Your task to perform on an android device: turn on location history Image 0: 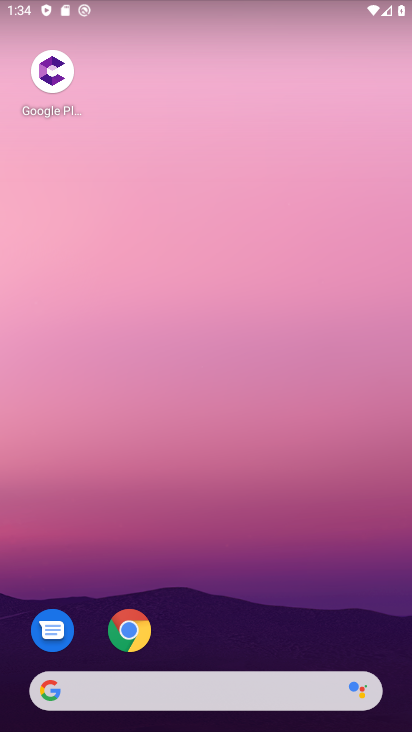
Step 0: drag from (388, 704) to (354, 103)
Your task to perform on an android device: turn on location history Image 1: 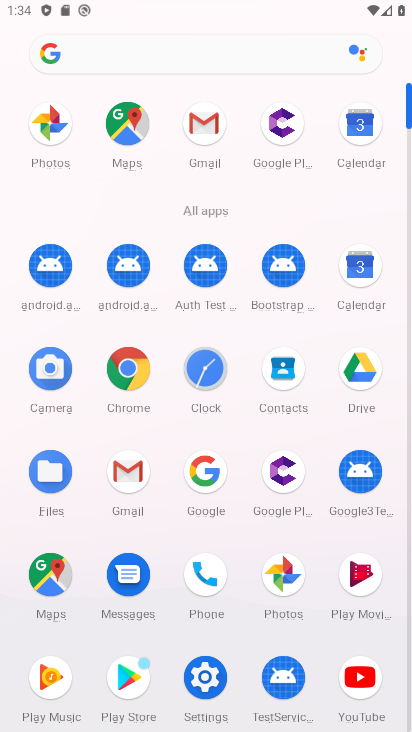
Step 1: click (197, 672)
Your task to perform on an android device: turn on location history Image 2: 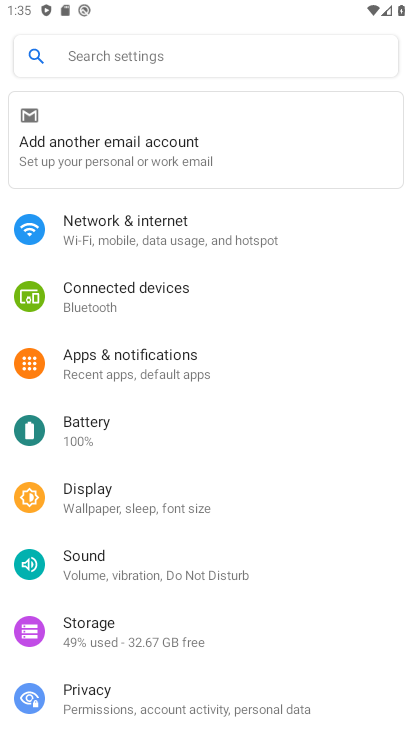
Step 2: drag from (210, 634) to (208, 330)
Your task to perform on an android device: turn on location history Image 3: 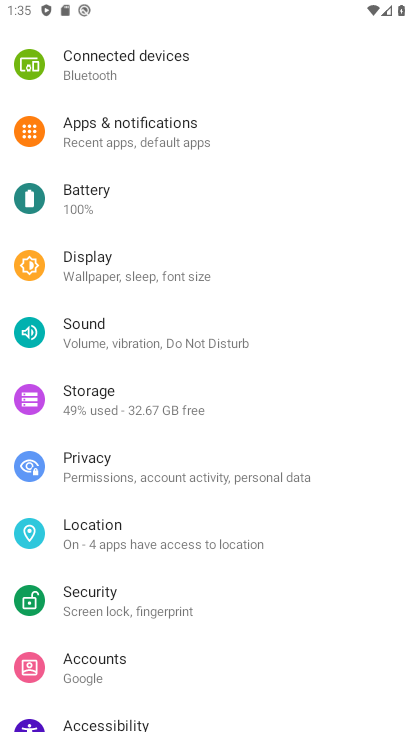
Step 3: click (81, 531)
Your task to perform on an android device: turn on location history Image 4: 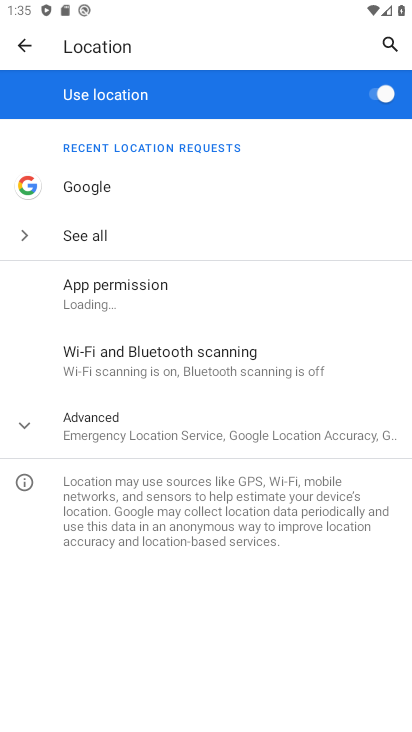
Step 4: click (27, 421)
Your task to perform on an android device: turn on location history Image 5: 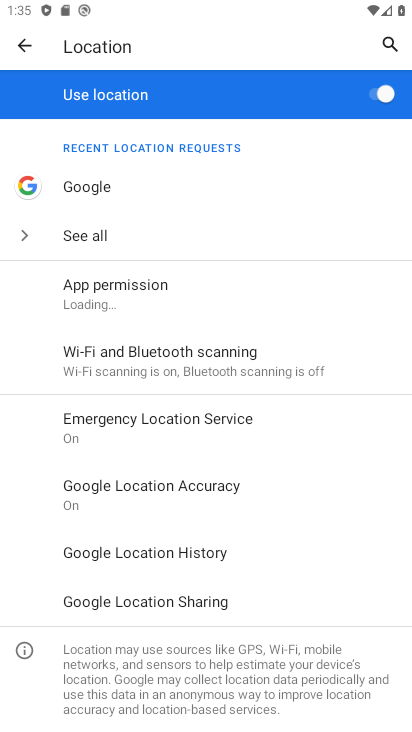
Step 5: click (164, 564)
Your task to perform on an android device: turn on location history Image 6: 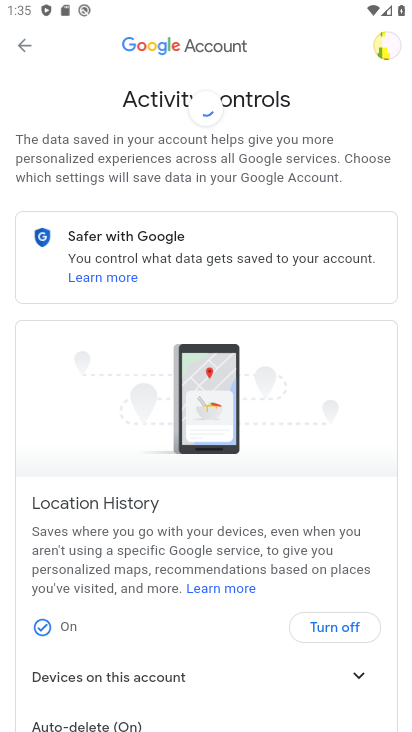
Step 6: task complete